Your task to perform on an android device: Open Maps and search for coffee Image 0: 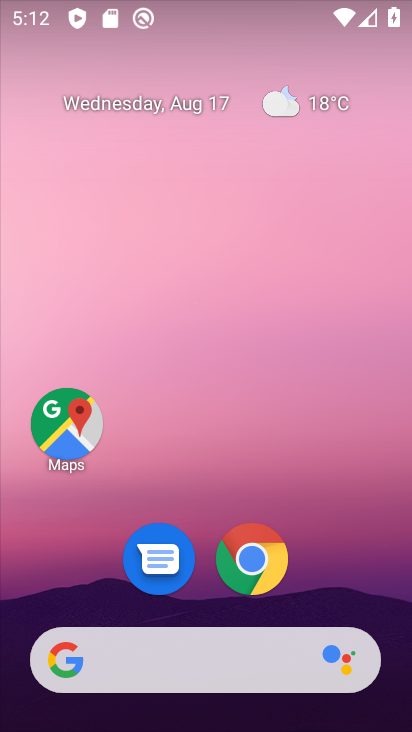
Step 0: click (80, 450)
Your task to perform on an android device: Open Maps and search for coffee Image 1: 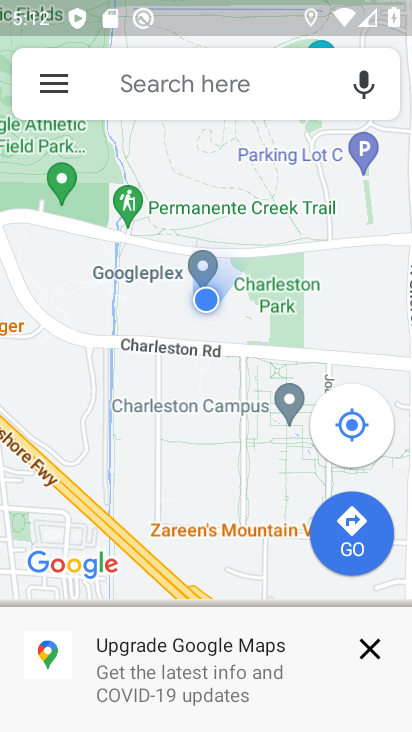
Step 1: click (204, 88)
Your task to perform on an android device: Open Maps and search for coffee Image 2: 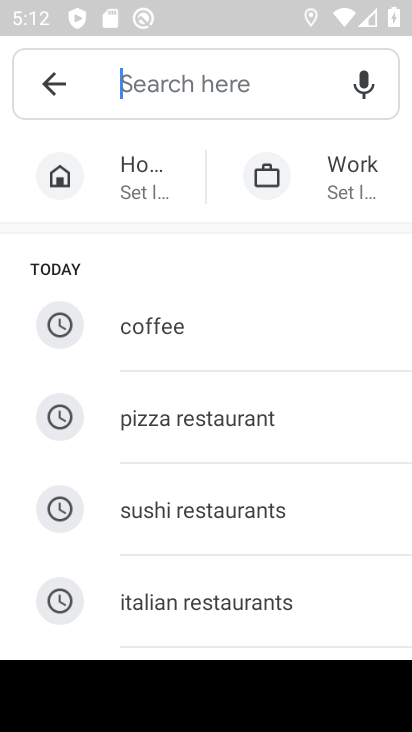
Step 2: click (148, 318)
Your task to perform on an android device: Open Maps and search for coffee Image 3: 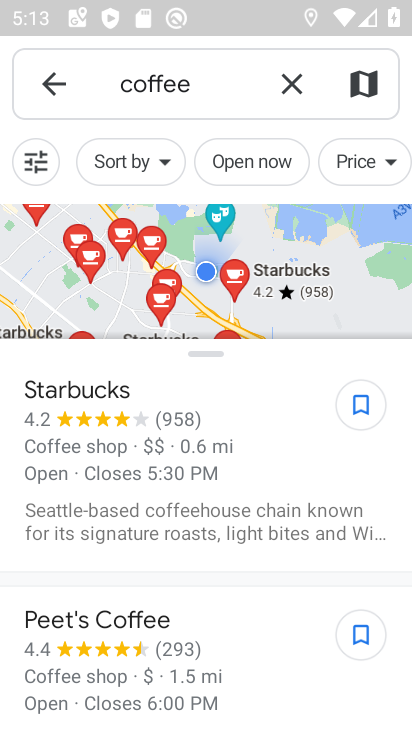
Step 3: task complete